Your task to perform on an android device: Turn on the flashlight Image 0: 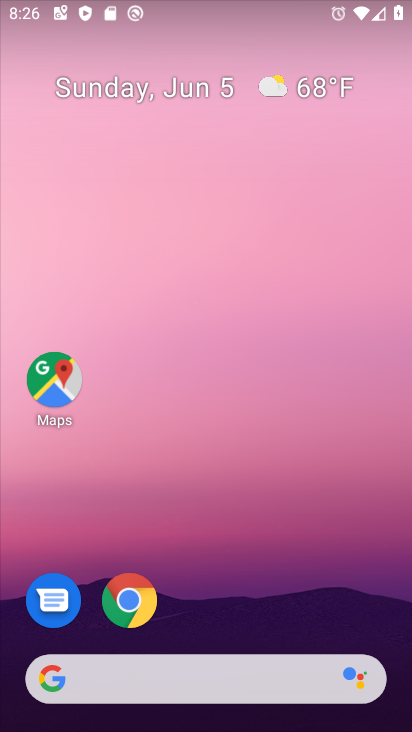
Step 0: drag from (361, 604) to (351, 11)
Your task to perform on an android device: Turn on the flashlight Image 1: 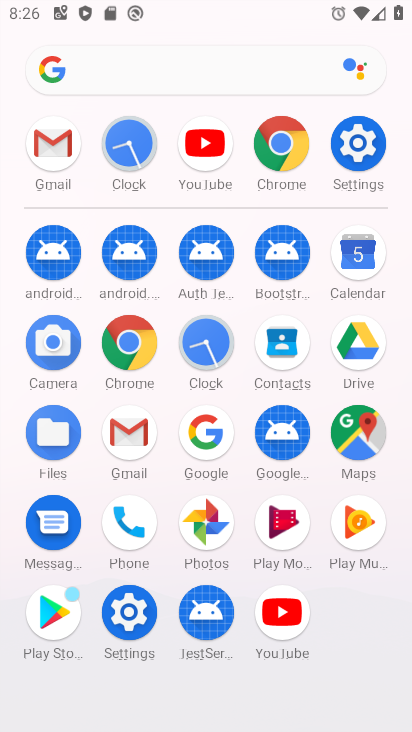
Step 1: click (349, 163)
Your task to perform on an android device: Turn on the flashlight Image 2: 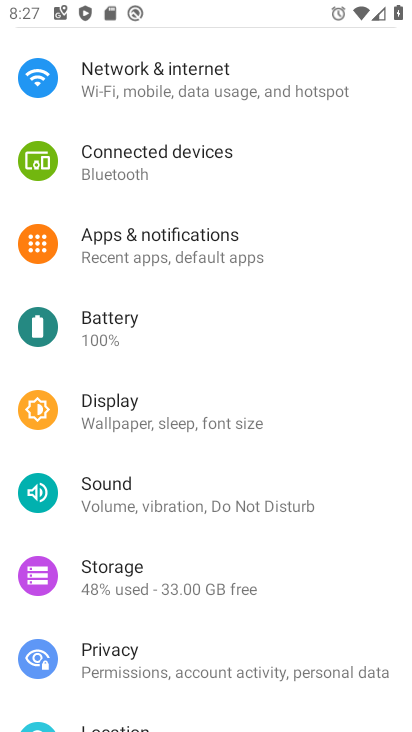
Step 2: task complete